Your task to perform on an android device: Go to CNN.com Image 0: 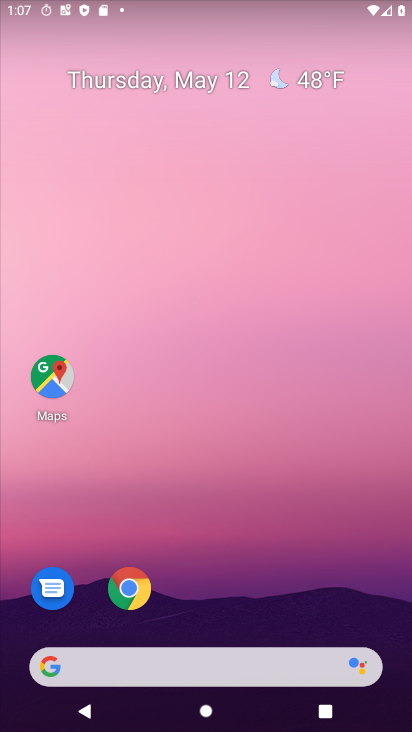
Step 0: drag from (215, 591) to (220, 89)
Your task to perform on an android device: Go to CNN.com Image 1: 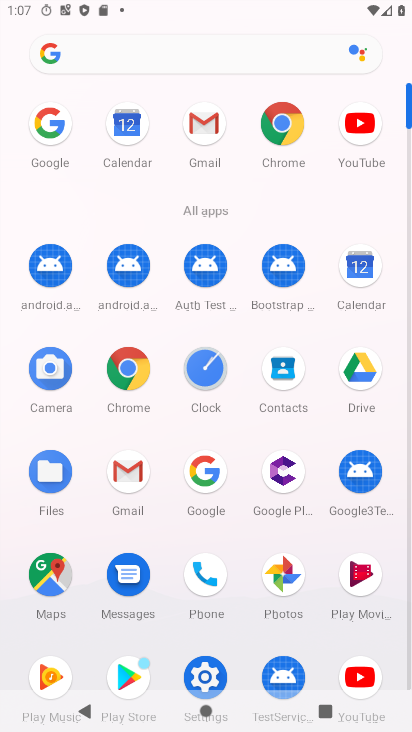
Step 1: click (45, 124)
Your task to perform on an android device: Go to CNN.com Image 2: 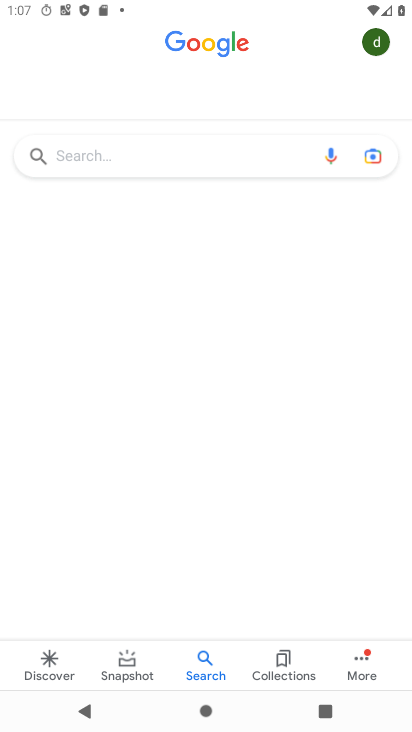
Step 2: click (141, 150)
Your task to perform on an android device: Go to CNN.com Image 3: 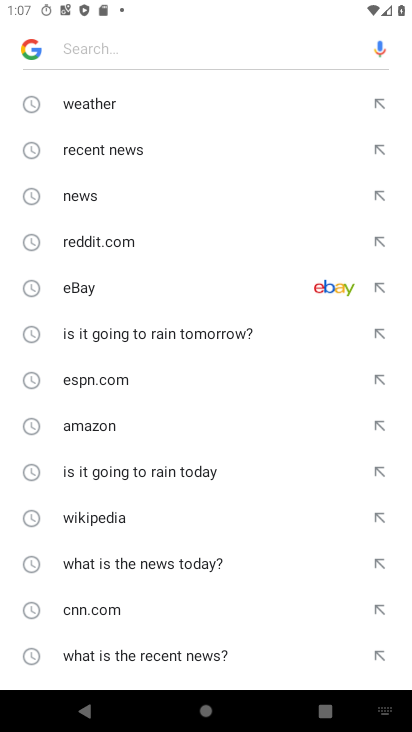
Step 3: click (87, 610)
Your task to perform on an android device: Go to CNN.com Image 4: 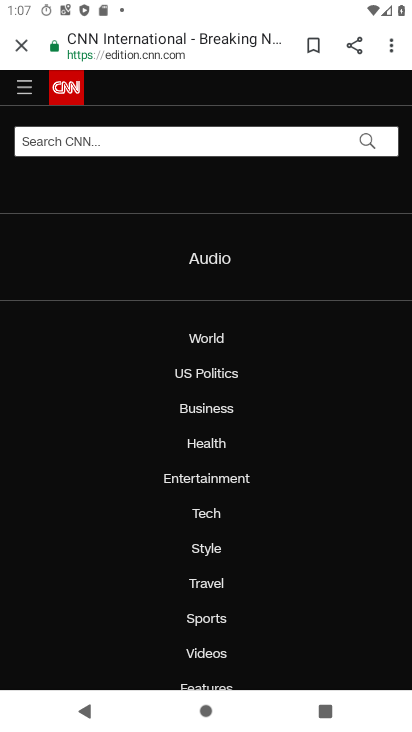
Step 4: task complete